Your task to perform on an android device: check battery use Image 0: 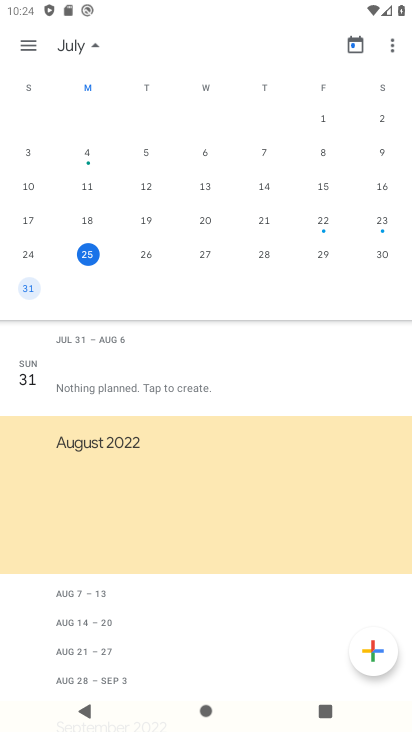
Step 0: press home button
Your task to perform on an android device: check battery use Image 1: 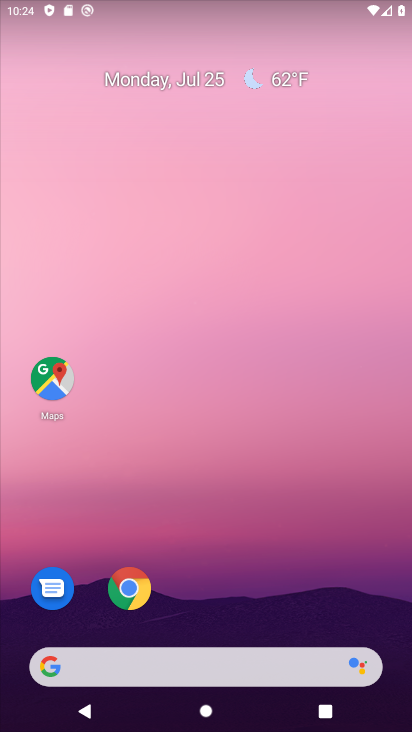
Step 1: drag from (290, 718) to (228, 79)
Your task to perform on an android device: check battery use Image 2: 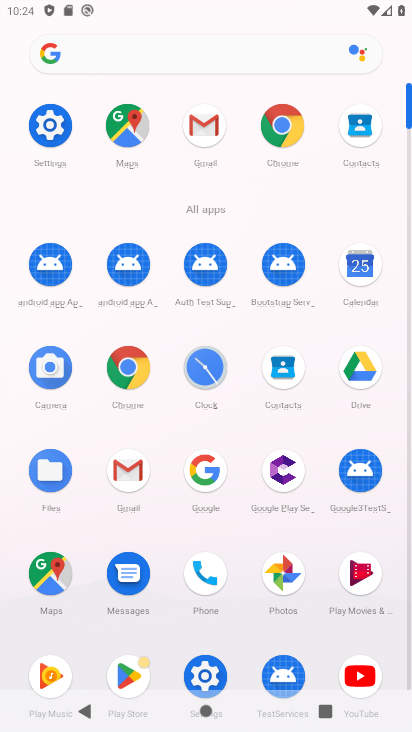
Step 2: click (54, 121)
Your task to perform on an android device: check battery use Image 3: 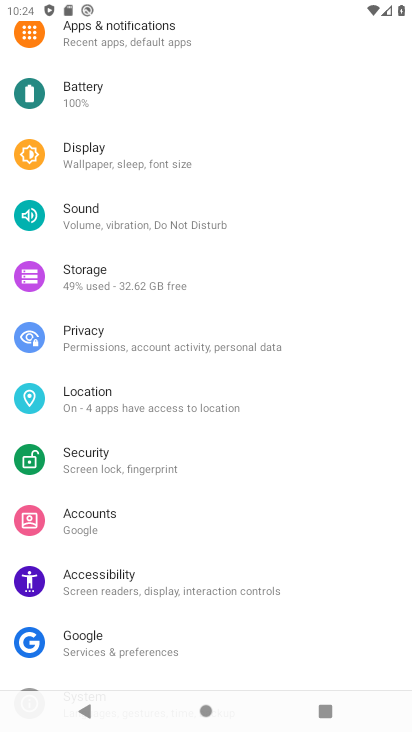
Step 3: click (96, 101)
Your task to perform on an android device: check battery use Image 4: 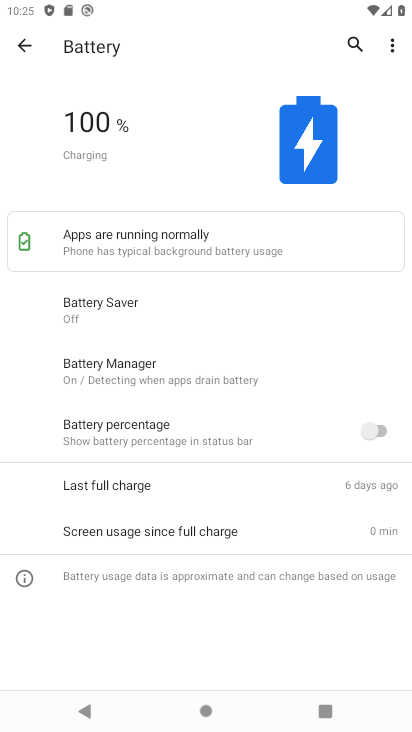
Step 4: task complete